Your task to perform on an android device: Go to CNN.com Image 0: 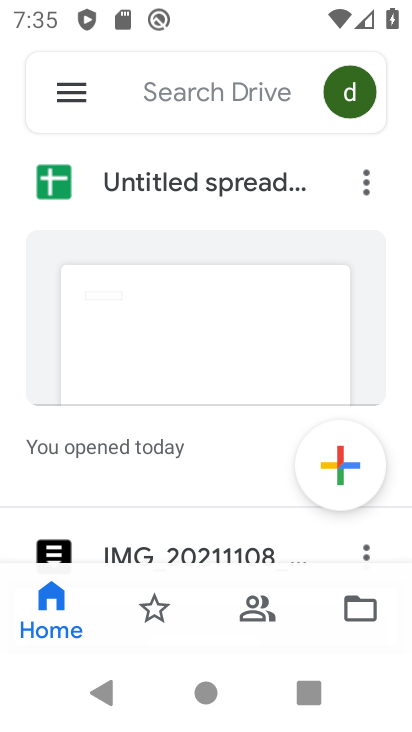
Step 0: press home button
Your task to perform on an android device: Go to CNN.com Image 1: 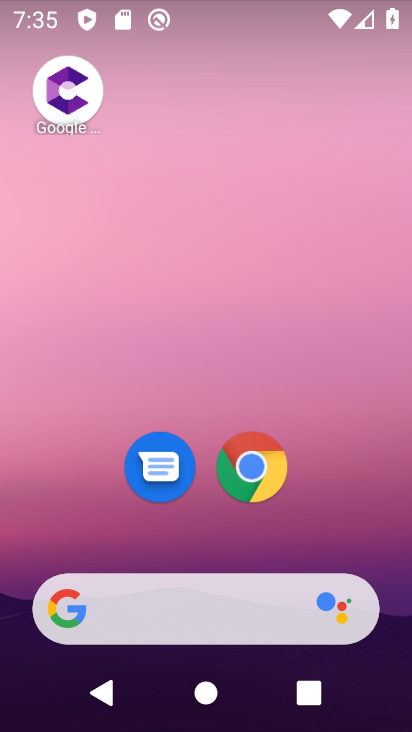
Step 1: drag from (363, 526) to (364, 113)
Your task to perform on an android device: Go to CNN.com Image 2: 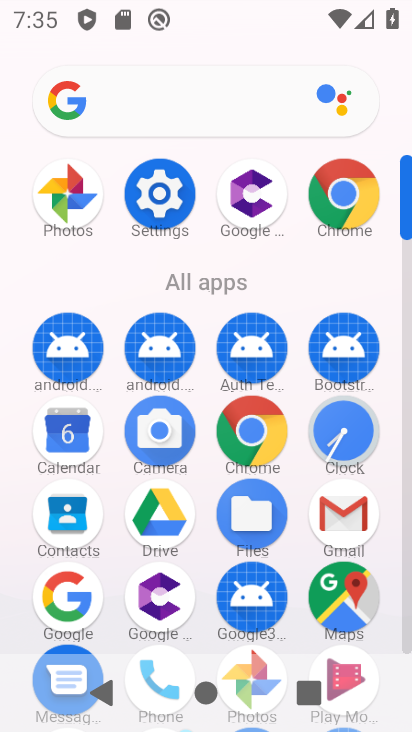
Step 2: click (268, 433)
Your task to perform on an android device: Go to CNN.com Image 3: 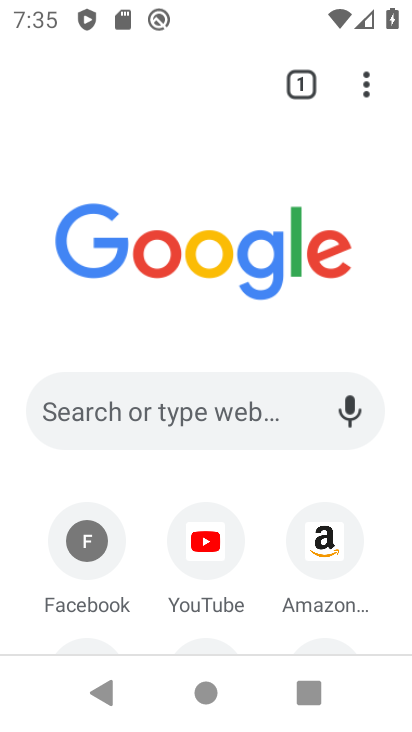
Step 3: click (235, 415)
Your task to perform on an android device: Go to CNN.com Image 4: 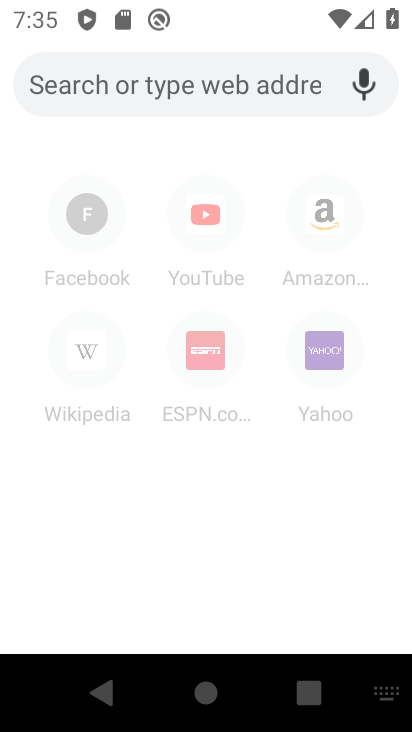
Step 4: type "cnn.com"
Your task to perform on an android device: Go to CNN.com Image 5: 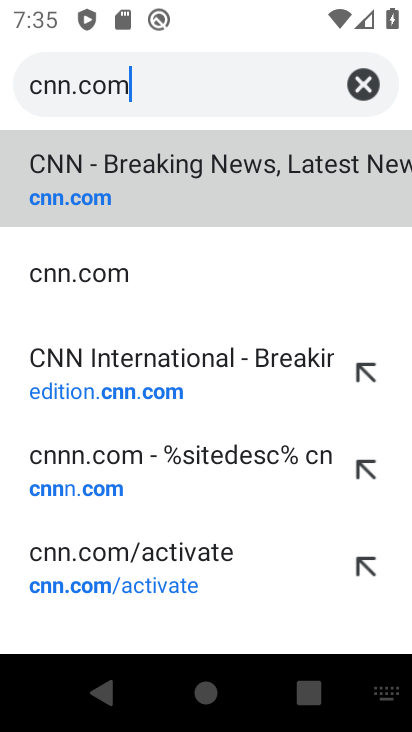
Step 5: click (212, 181)
Your task to perform on an android device: Go to CNN.com Image 6: 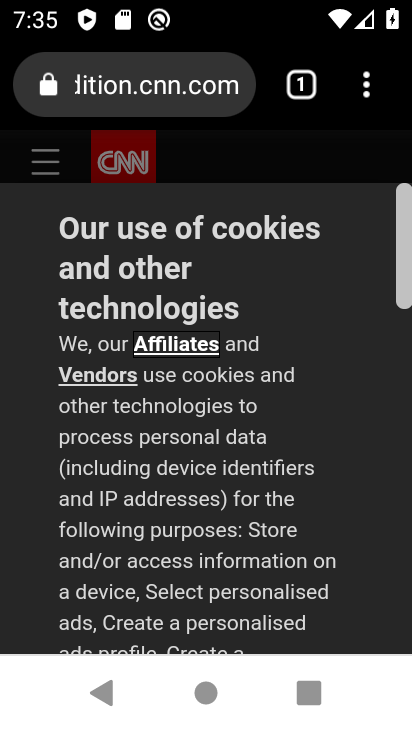
Step 6: task complete